Your task to perform on an android device: turn on location history Image 0: 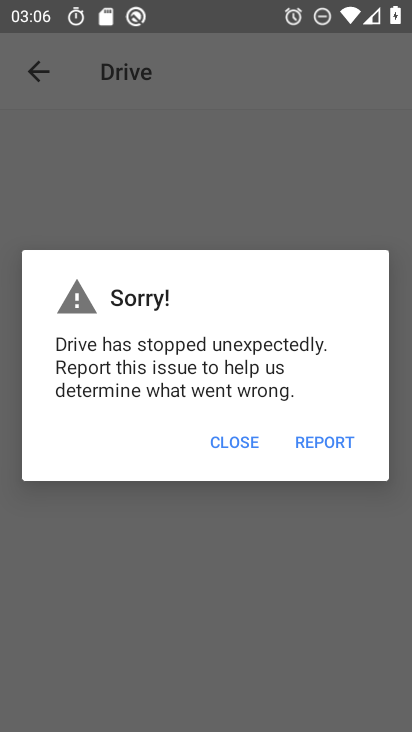
Step 0: press home button
Your task to perform on an android device: turn on location history Image 1: 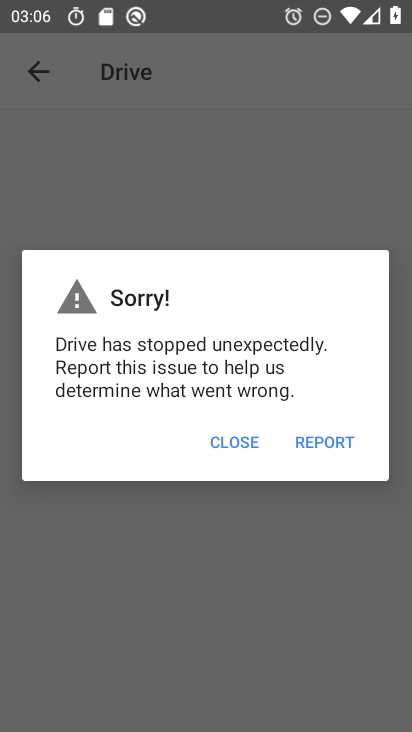
Step 1: press home button
Your task to perform on an android device: turn on location history Image 2: 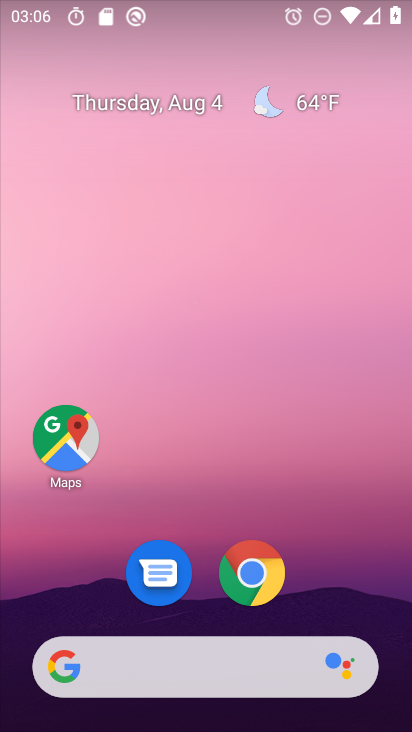
Step 2: drag from (321, 589) to (304, 82)
Your task to perform on an android device: turn on location history Image 3: 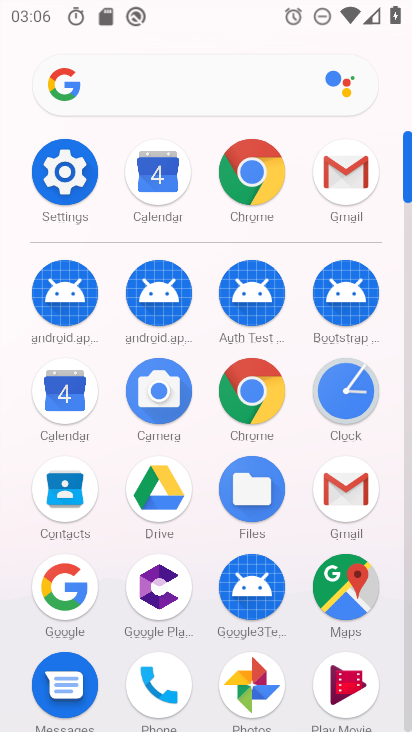
Step 3: click (57, 174)
Your task to perform on an android device: turn on location history Image 4: 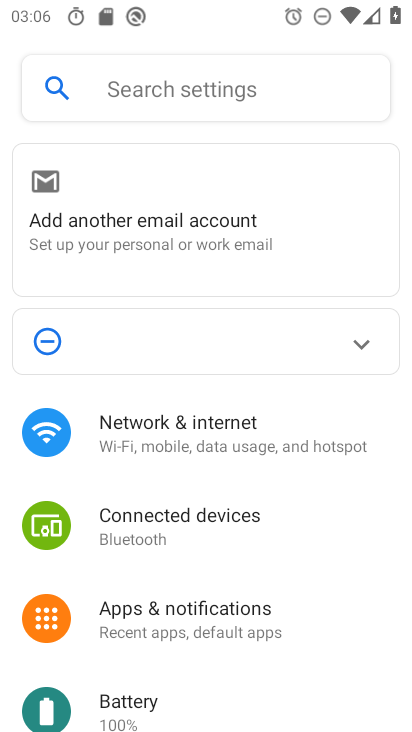
Step 4: drag from (237, 655) to (307, 150)
Your task to perform on an android device: turn on location history Image 5: 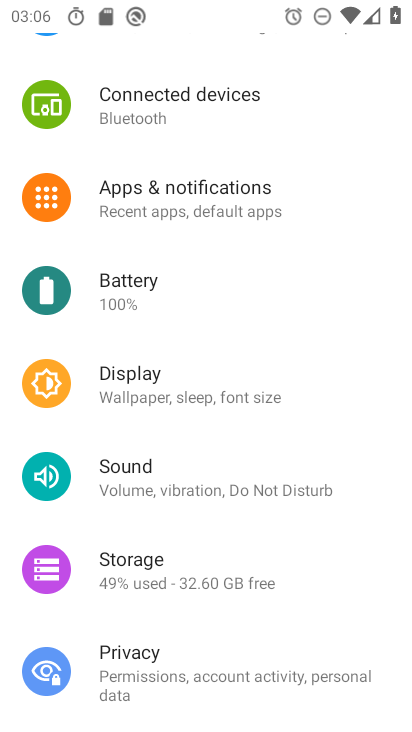
Step 5: drag from (252, 638) to (292, 234)
Your task to perform on an android device: turn on location history Image 6: 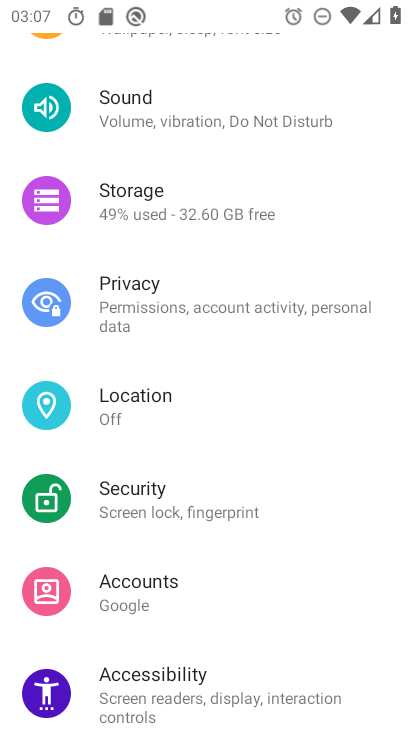
Step 6: click (133, 413)
Your task to perform on an android device: turn on location history Image 7: 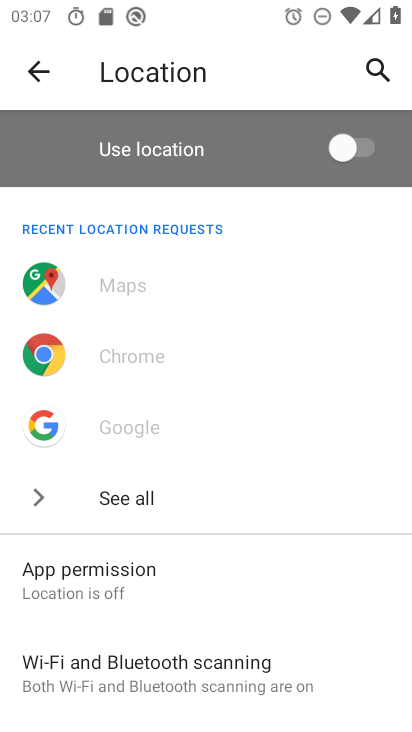
Step 7: drag from (265, 583) to (323, 225)
Your task to perform on an android device: turn on location history Image 8: 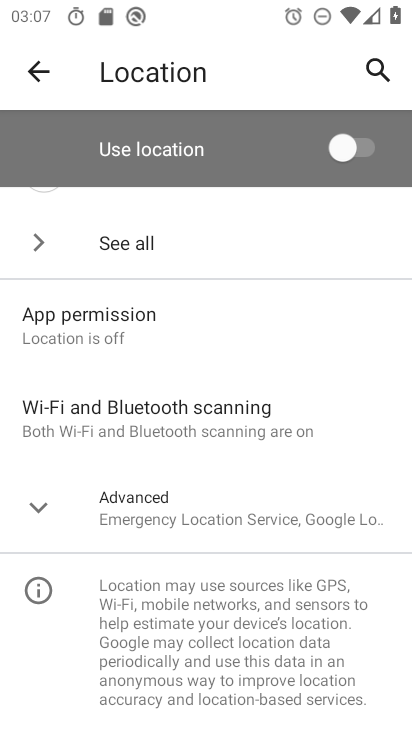
Step 8: click (246, 538)
Your task to perform on an android device: turn on location history Image 9: 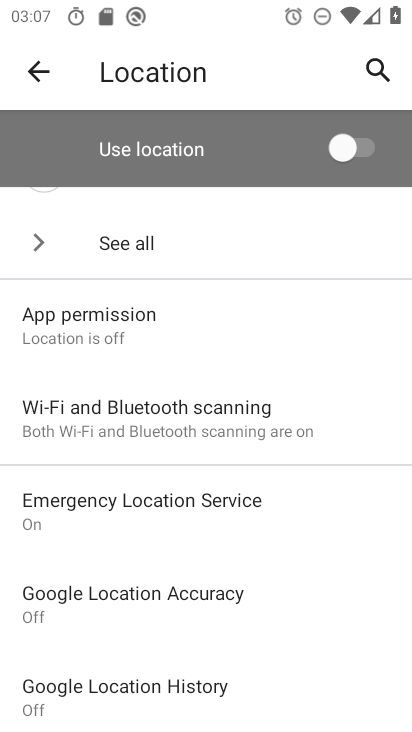
Step 9: click (210, 693)
Your task to perform on an android device: turn on location history Image 10: 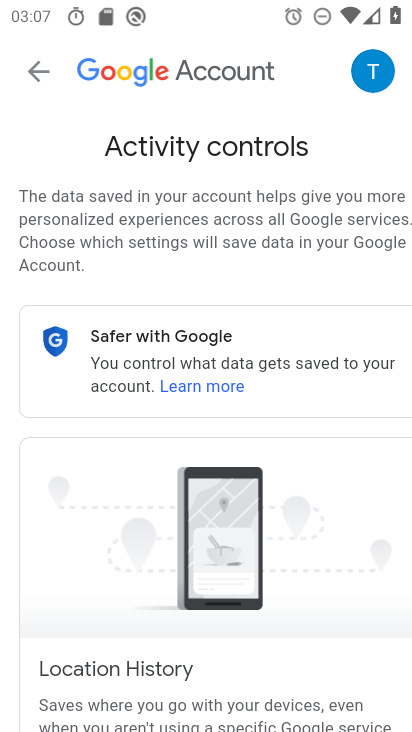
Step 10: drag from (323, 576) to (327, 161)
Your task to perform on an android device: turn on location history Image 11: 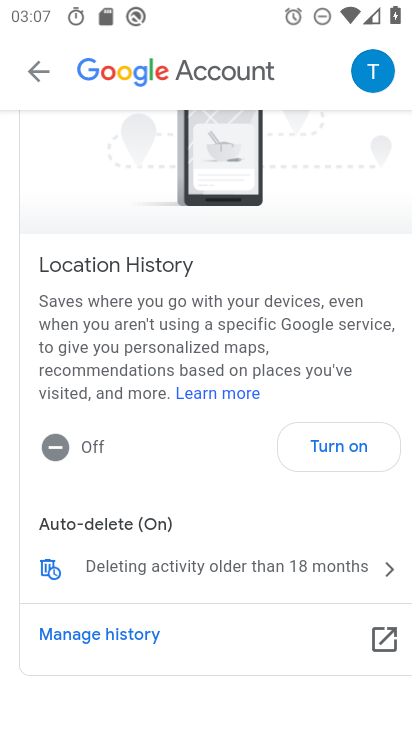
Step 11: click (324, 452)
Your task to perform on an android device: turn on location history Image 12: 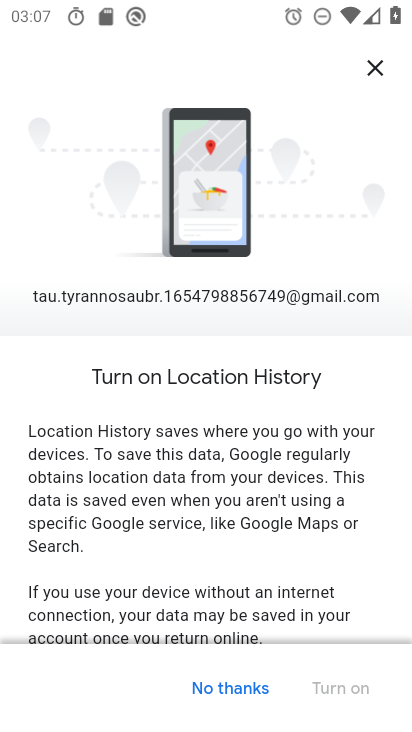
Step 12: drag from (318, 586) to (296, 39)
Your task to perform on an android device: turn on location history Image 13: 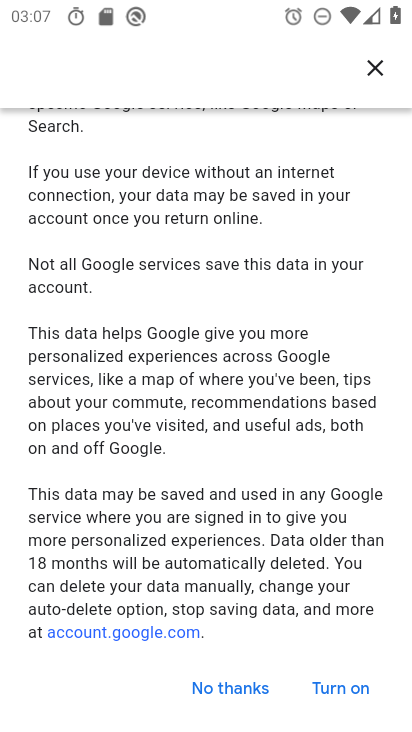
Step 13: click (327, 694)
Your task to perform on an android device: turn on location history Image 14: 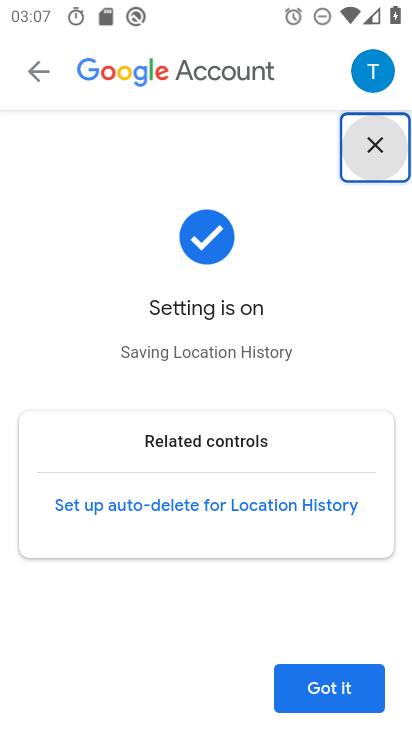
Step 14: task complete